Your task to perform on an android device: What's the weather today? Image 0: 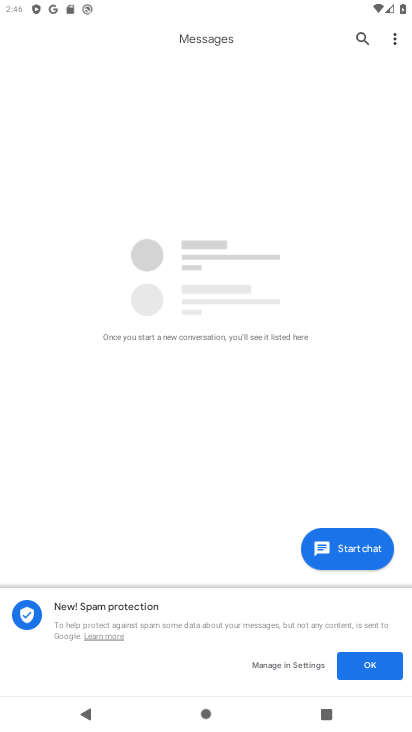
Step 0: press home button
Your task to perform on an android device: What's the weather today? Image 1: 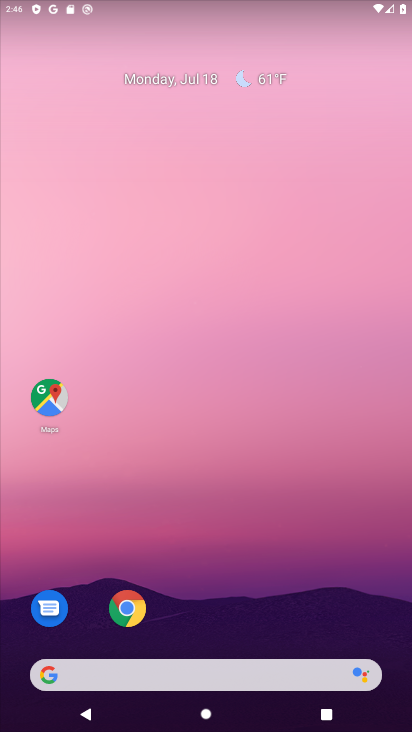
Step 1: click (225, 680)
Your task to perform on an android device: What's the weather today? Image 2: 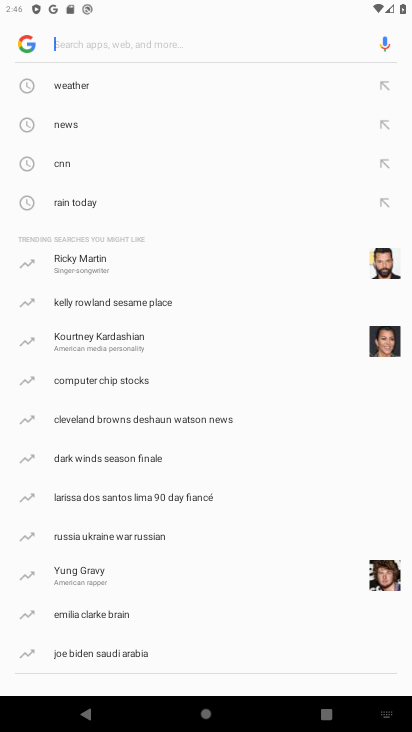
Step 2: type "what's the weather today?"
Your task to perform on an android device: What's the weather today? Image 3: 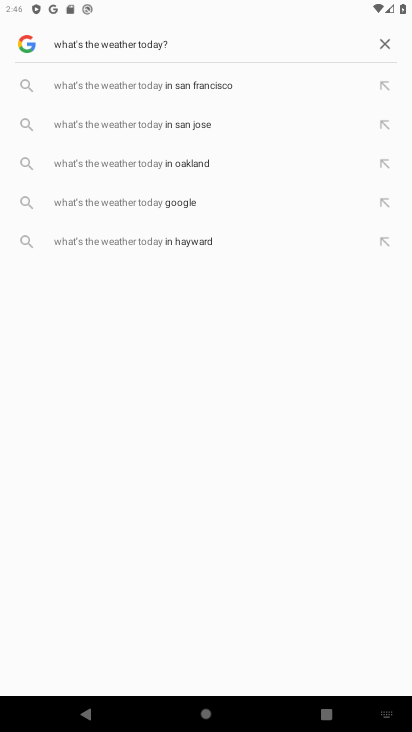
Step 3: click (143, 212)
Your task to perform on an android device: What's the weather today? Image 4: 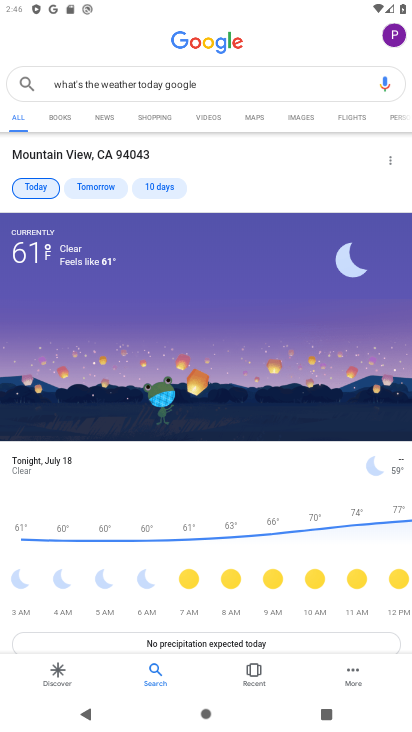
Step 4: task complete